Your task to perform on an android device: delete browsing data in the chrome app Image 0: 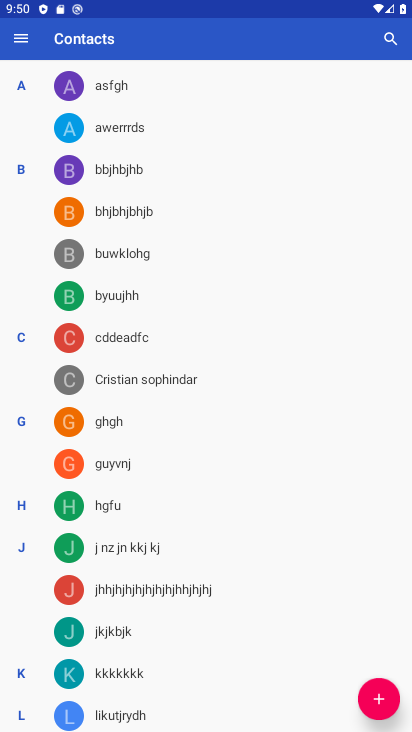
Step 0: press home button
Your task to perform on an android device: delete browsing data in the chrome app Image 1: 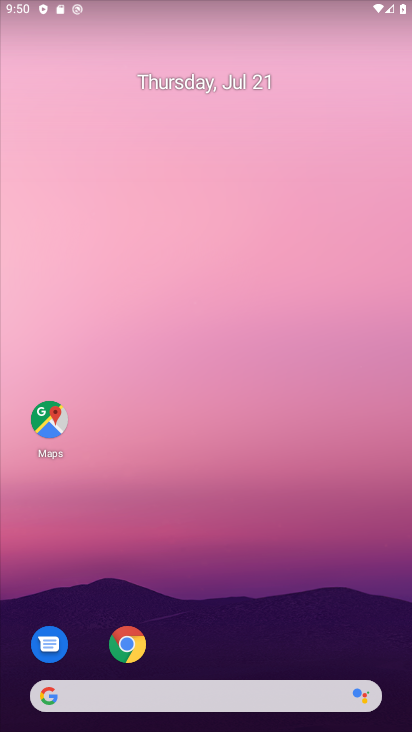
Step 1: drag from (168, 638) to (201, 70)
Your task to perform on an android device: delete browsing data in the chrome app Image 2: 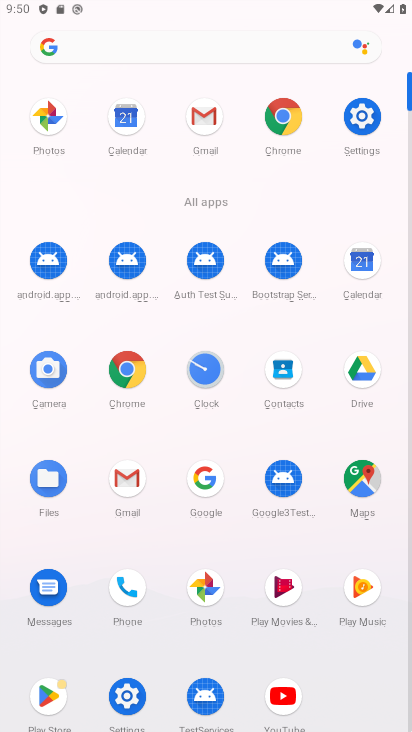
Step 2: click (129, 378)
Your task to perform on an android device: delete browsing data in the chrome app Image 3: 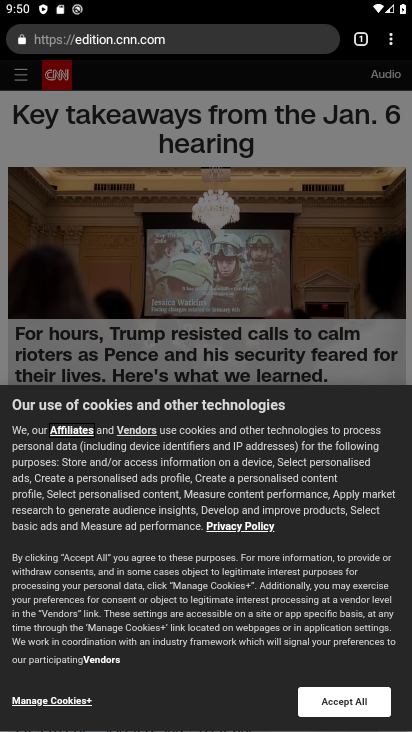
Step 3: click (392, 49)
Your task to perform on an android device: delete browsing data in the chrome app Image 4: 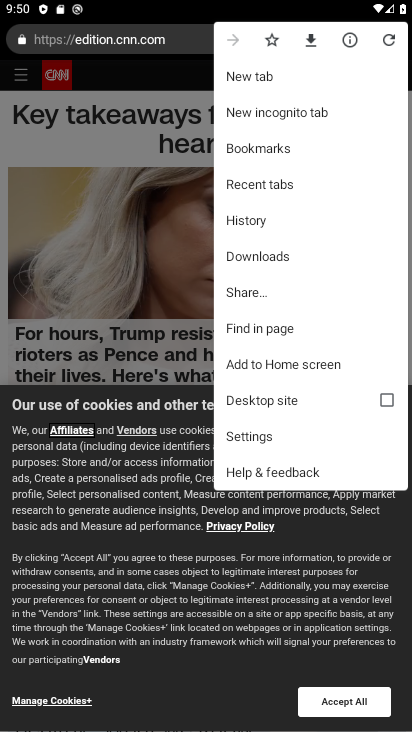
Step 4: click (256, 225)
Your task to perform on an android device: delete browsing data in the chrome app Image 5: 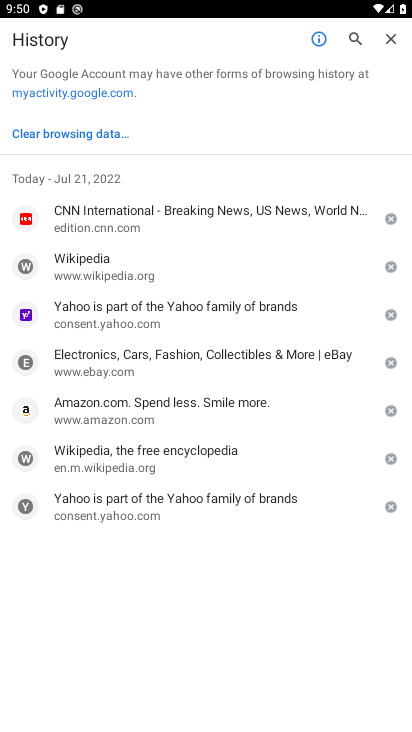
Step 5: click (56, 133)
Your task to perform on an android device: delete browsing data in the chrome app Image 6: 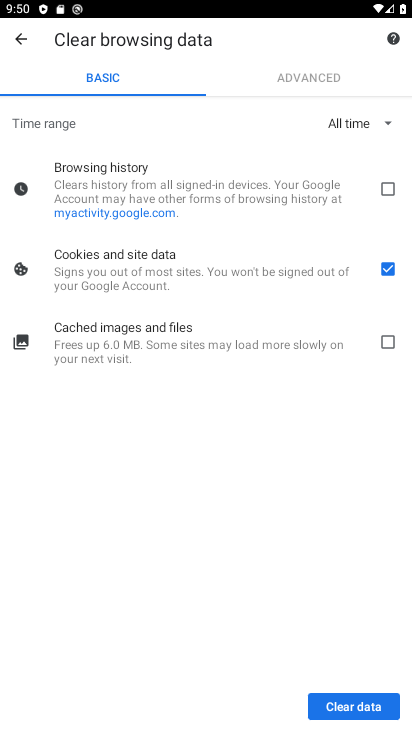
Step 6: click (385, 190)
Your task to perform on an android device: delete browsing data in the chrome app Image 7: 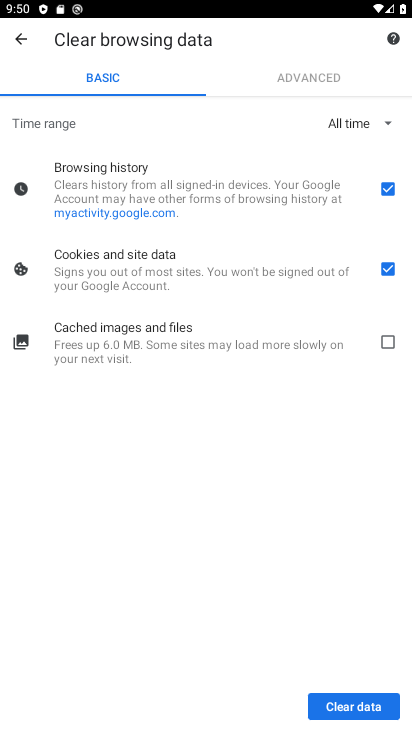
Step 7: click (384, 338)
Your task to perform on an android device: delete browsing data in the chrome app Image 8: 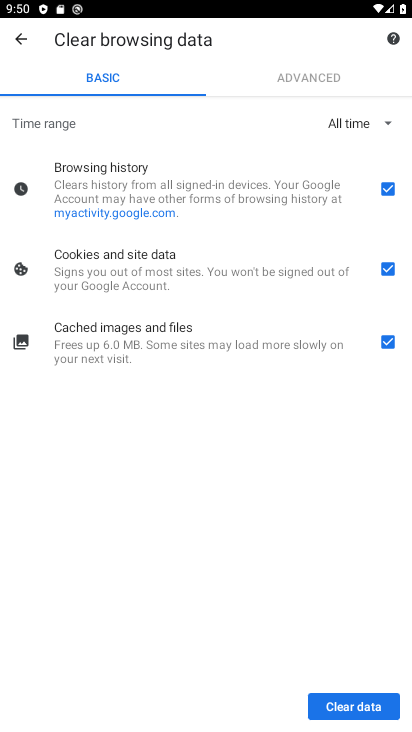
Step 8: click (388, 339)
Your task to perform on an android device: delete browsing data in the chrome app Image 9: 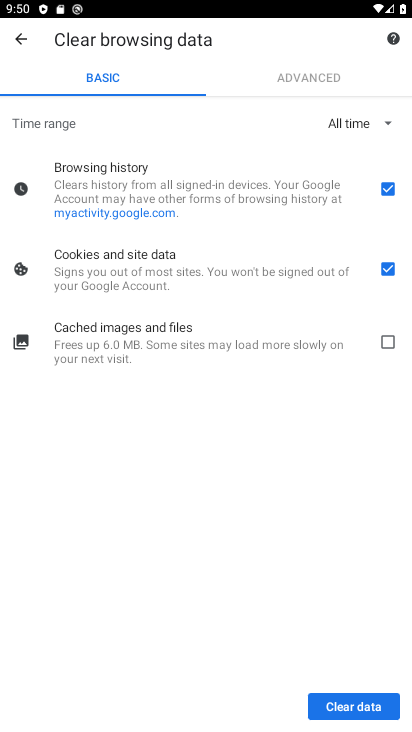
Step 9: click (364, 711)
Your task to perform on an android device: delete browsing data in the chrome app Image 10: 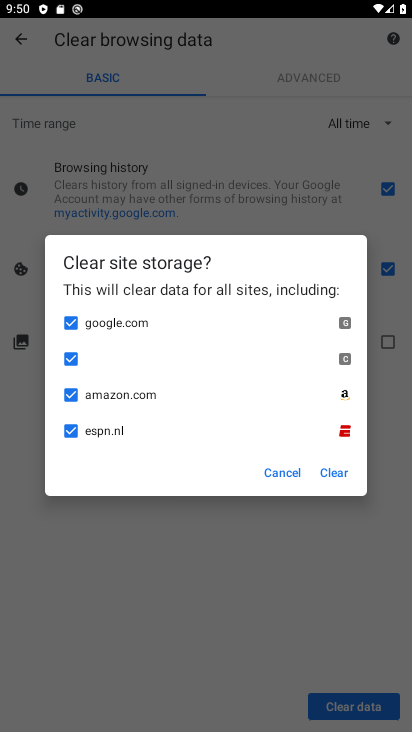
Step 10: click (339, 472)
Your task to perform on an android device: delete browsing data in the chrome app Image 11: 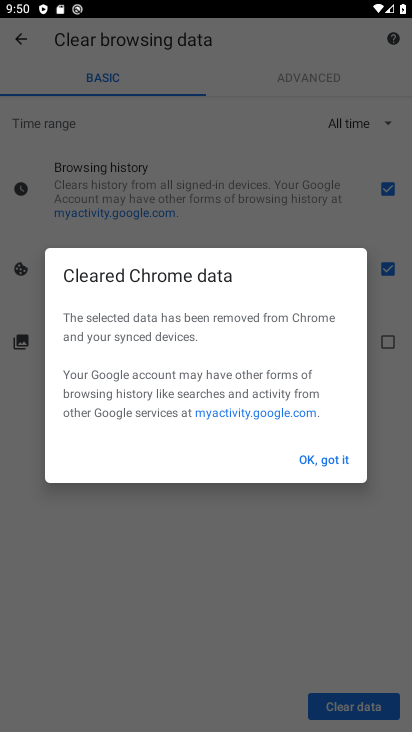
Step 11: click (331, 460)
Your task to perform on an android device: delete browsing data in the chrome app Image 12: 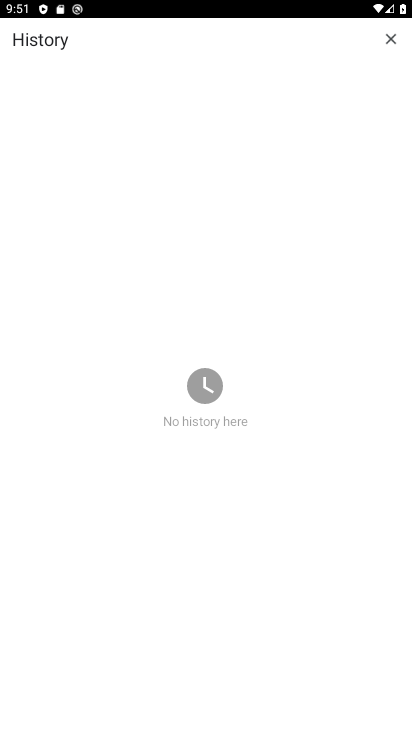
Step 12: task complete